Your task to perform on an android device: change alarm snooze length Image 0: 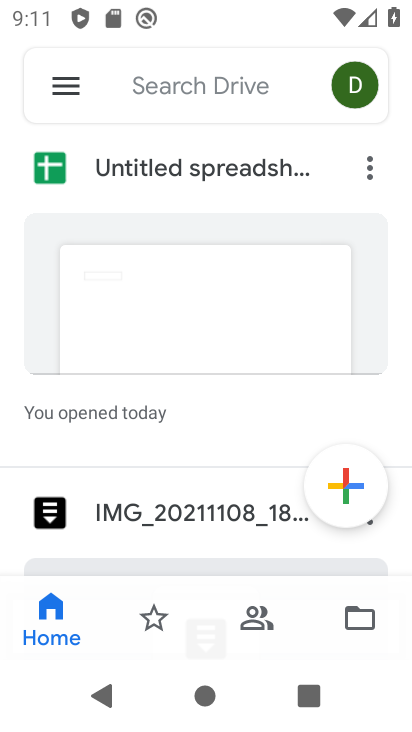
Step 0: press home button
Your task to perform on an android device: change alarm snooze length Image 1: 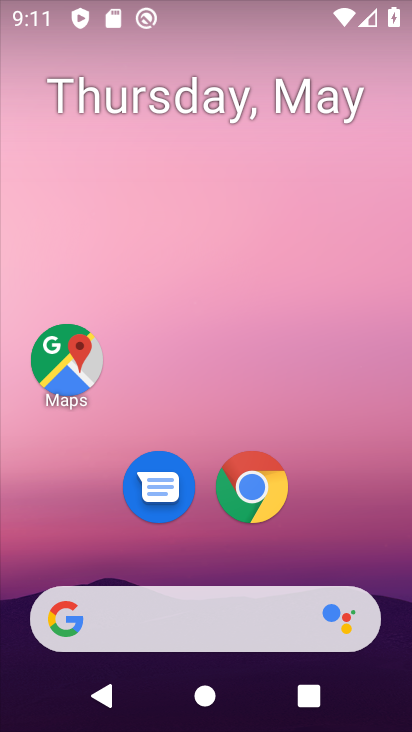
Step 1: drag from (223, 547) to (255, 78)
Your task to perform on an android device: change alarm snooze length Image 2: 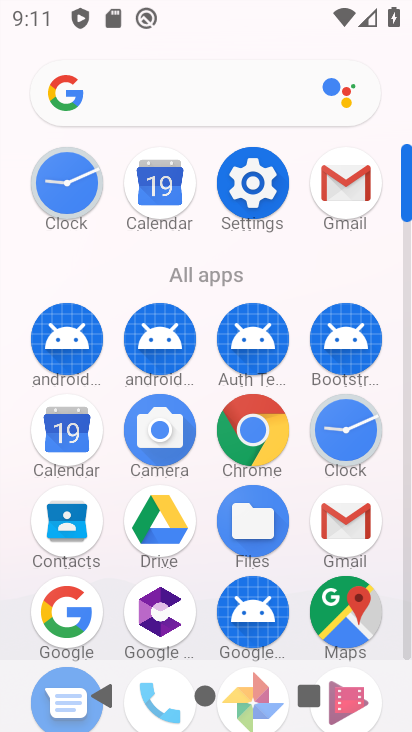
Step 2: click (349, 428)
Your task to perform on an android device: change alarm snooze length Image 3: 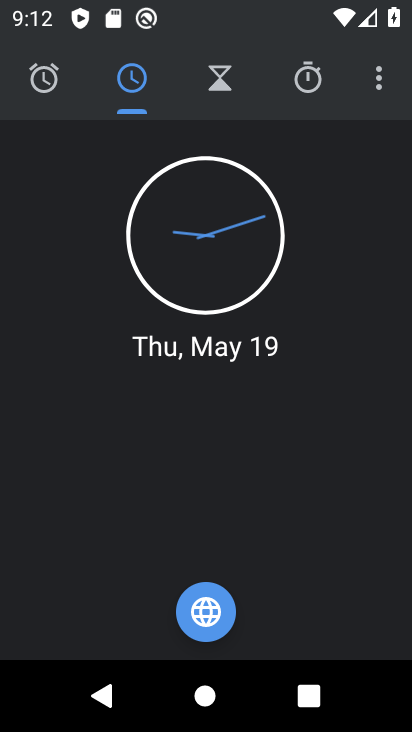
Step 3: click (374, 65)
Your task to perform on an android device: change alarm snooze length Image 4: 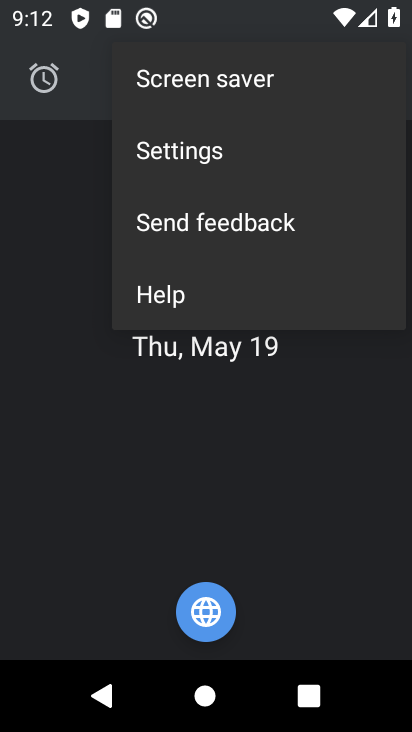
Step 4: click (222, 134)
Your task to perform on an android device: change alarm snooze length Image 5: 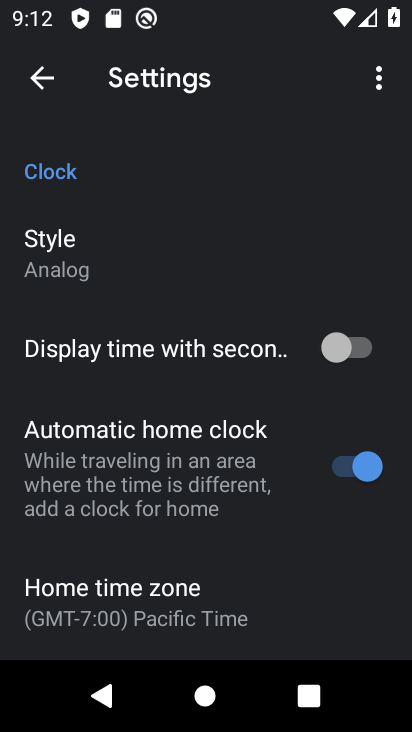
Step 5: drag from (172, 569) to (270, 90)
Your task to perform on an android device: change alarm snooze length Image 6: 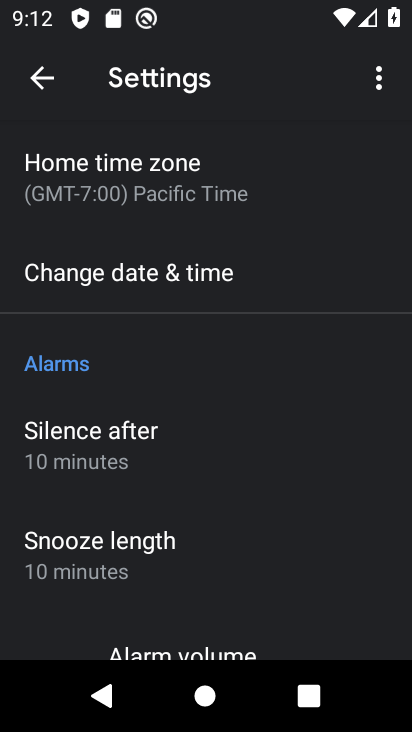
Step 6: click (192, 558)
Your task to perform on an android device: change alarm snooze length Image 7: 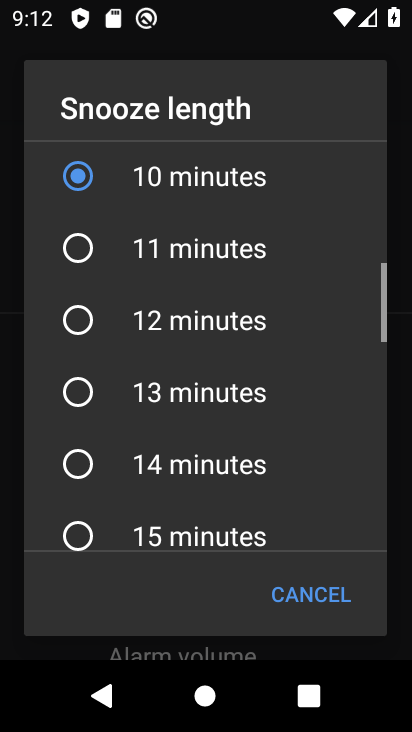
Step 7: click (98, 247)
Your task to perform on an android device: change alarm snooze length Image 8: 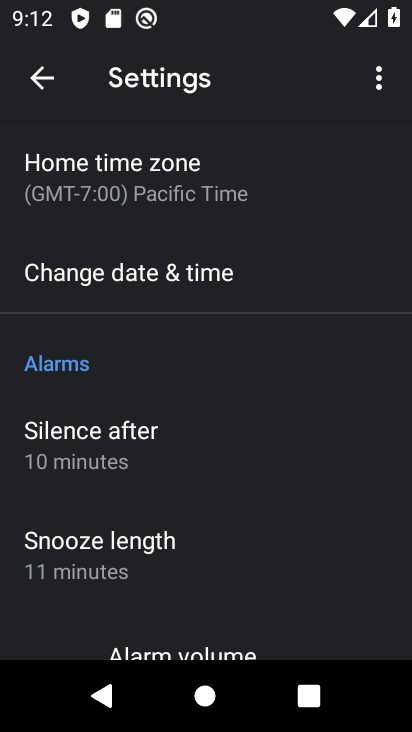
Step 8: task complete